Your task to perform on an android device: Clear all items from cart on ebay. Add "alienware aurora" to the cart on ebay Image 0: 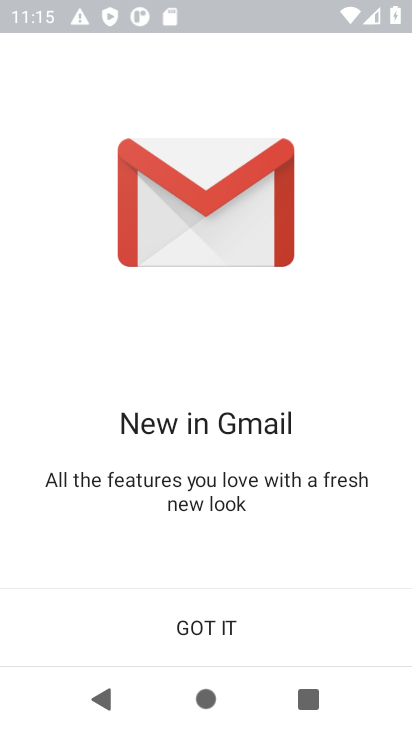
Step 0: press home button
Your task to perform on an android device: Clear all items from cart on ebay. Add "alienware aurora" to the cart on ebay Image 1: 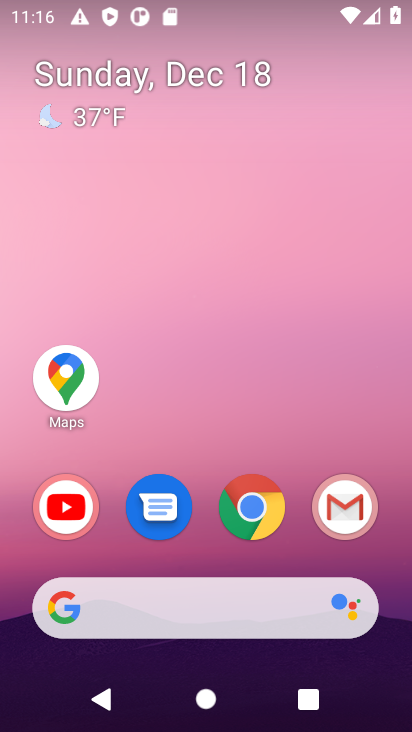
Step 1: click (253, 511)
Your task to perform on an android device: Clear all items from cart on ebay. Add "alienware aurora" to the cart on ebay Image 2: 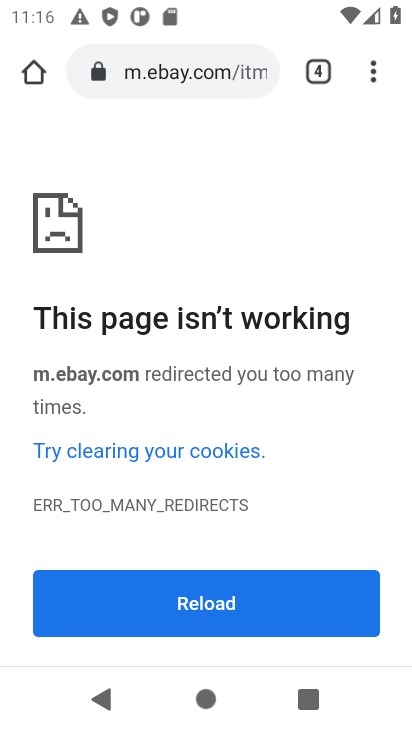
Step 2: press back button
Your task to perform on an android device: Clear all items from cart on ebay. Add "alienware aurora" to the cart on ebay Image 3: 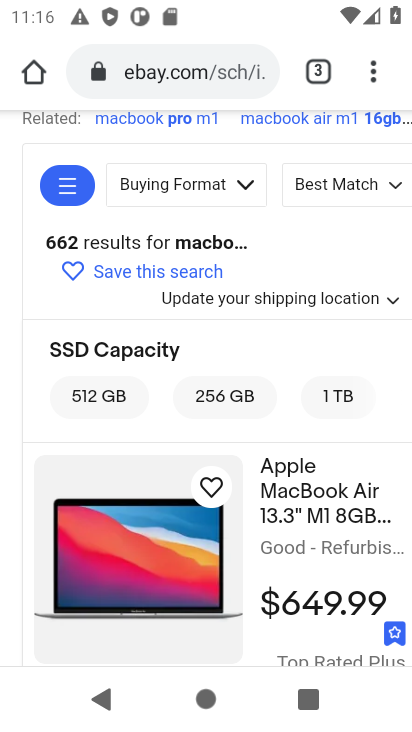
Step 3: drag from (221, 243) to (182, 523)
Your task to perform on an android device: Clear all items from cart on ebay. Add "alienware aurora" to the cart on ebay Image 4: 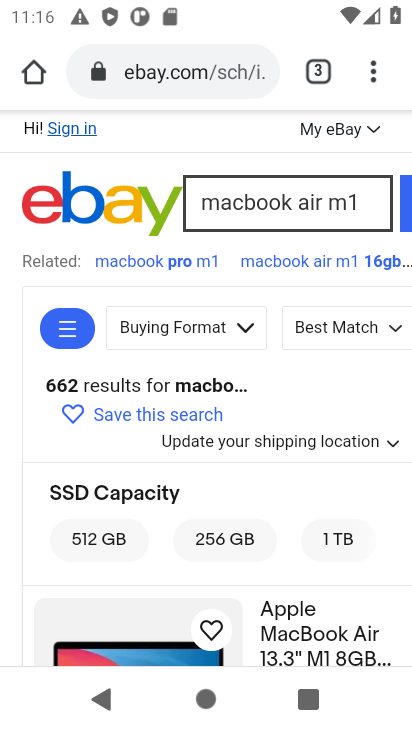
Step 4: drag from (356, 143) to (63, 151)
Your task to perform on an android device: Clear all items from cart on ebay. Add "alienware aurora" to the cart on ebay Image 5: 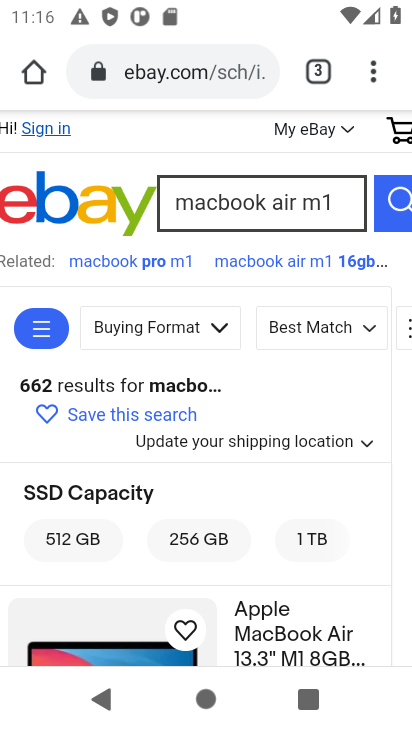
Step 5: click (394, 136)
Your task to perform on an android device: Clear all items from cart on ebay. Add "alienware aurora" to the cart on ebay Image 6: 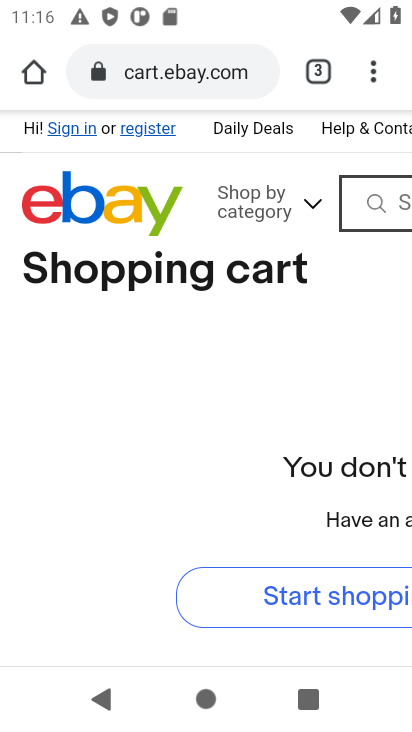
Step 6: click (396, 202)
Your task to perform on an android device: Clear all items from cart on ebay. Add "alienware aurora" to the cart on ebay Image 7: 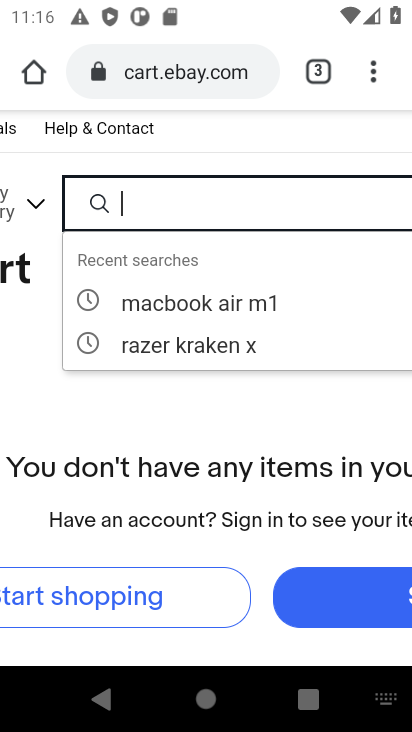
Step 7: type "alienware aurora"
Your task to perform on an android device: Clear all items from cart on ebay. Add "alienware aurora" to the cart on ebay Image 8: 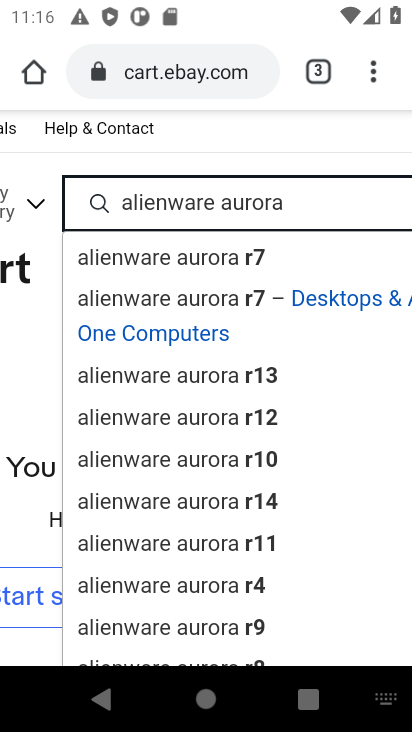
Step 8: click (180, 255)
Your task to perform on an android device: Clear all items from cart on ebay. Add "alienware aurora" to the cart on ebay Image 9: 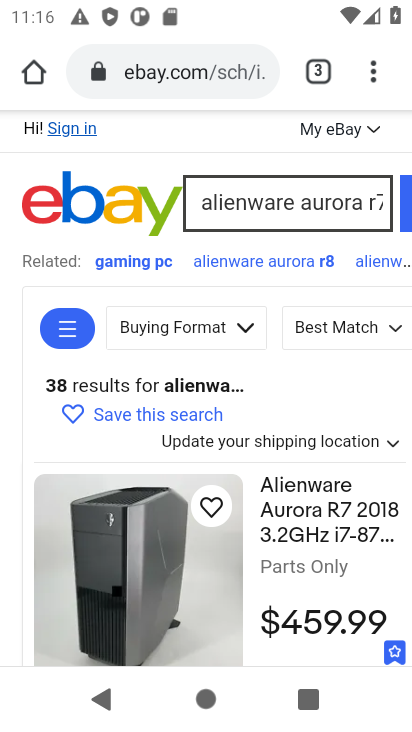
Step 9: drag from (198, 484) to (175, 238)
Your task to perform on an android device: Clear all items from cart on ebay. Add "alienware aurora" to the cart on ebay Image 10: 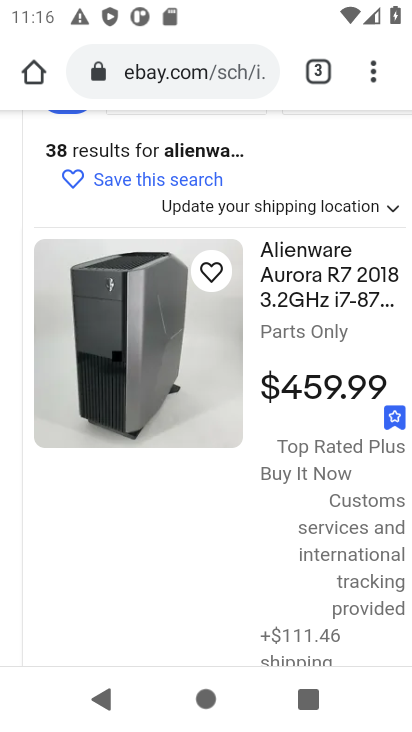
Step 10: click (310, 315)
Your task to perform on an android device: Clear all items from cart on ebay. Add "alienware aurora" to the cart on ebay Image 11: 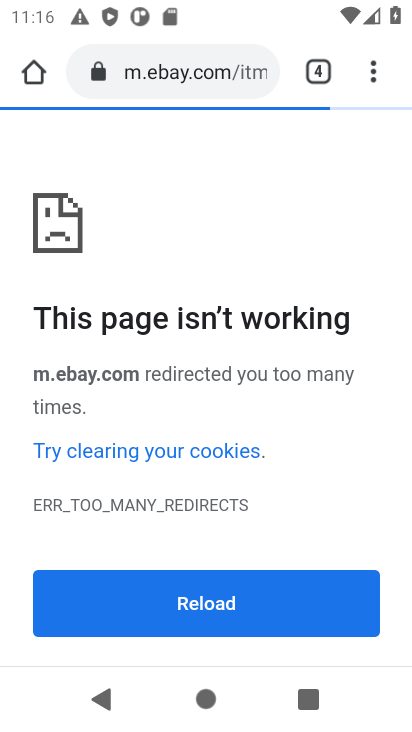
Step 11: task complete